Your task to perform on an android device: What's the weather today? Image 0: 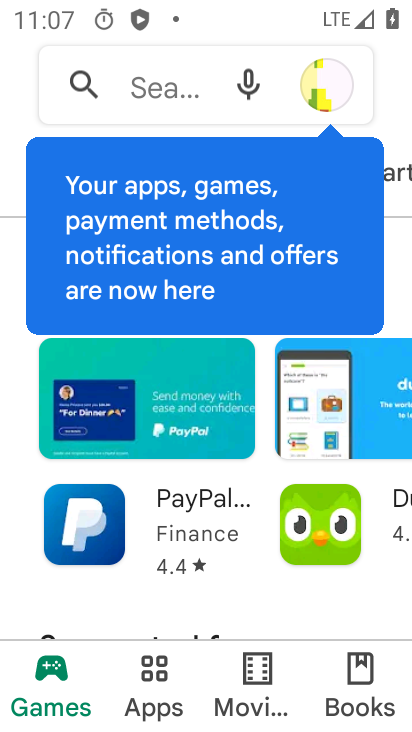
Step 0: press home button
Your task to perform on an android device: What's the weather today? Image 1: 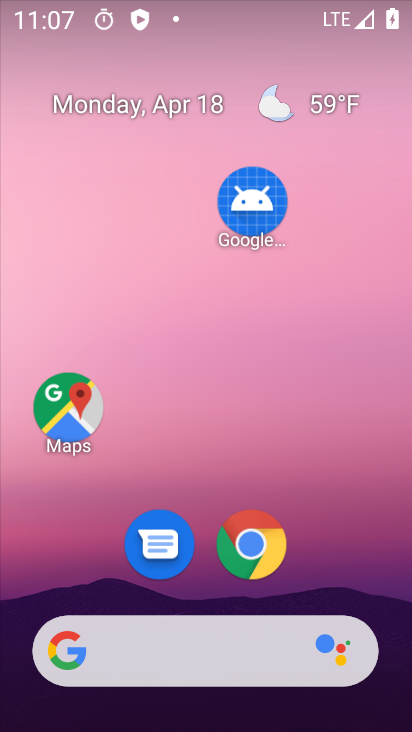
Step 1: click (351, 266)
Your task to perform on an android device: What's the weather today? Image 2: 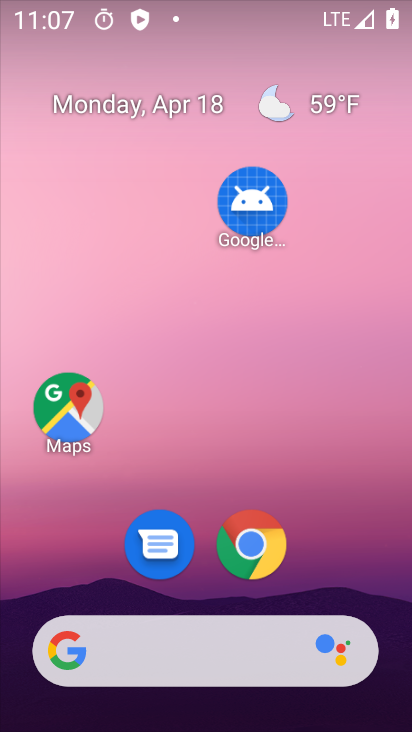
Step 2: drag from (251, 586) to (291, 188)
Your task to perform on an android device: What's the weather today? Image 3: 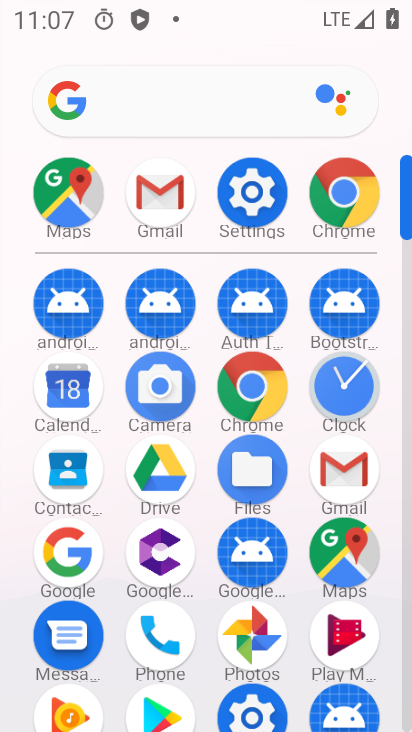
Step 3: drag from (213, 591) to (283, 175)
Your task to perform on an android device: What's the weather today? Image 4: 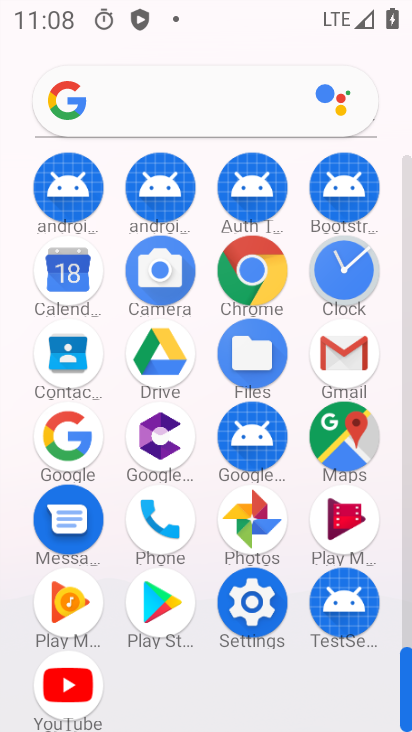
Step 4: drag from (186, 325) to (200, 699)
Your task to perform on an android device: What's the weather today? Image 5: 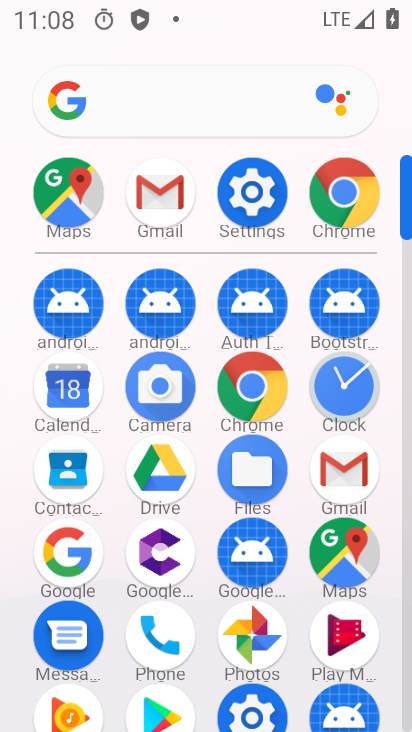
Step 5: click (66, 550)
Your task to perform on an android device: What's the weather today? Image 6: 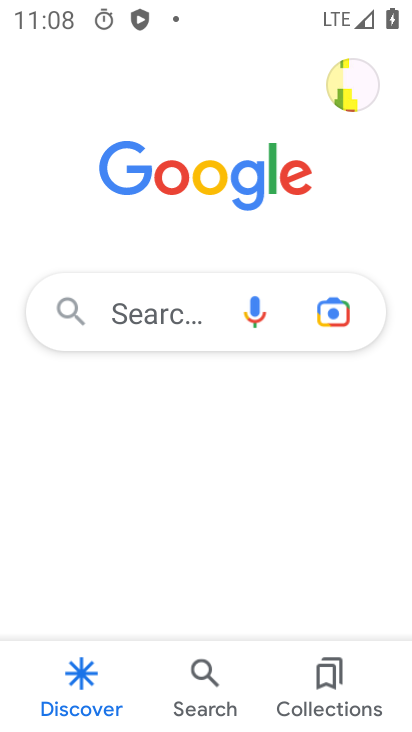
Step 6: click (162, 289)
Your task to perform on an android device: What's the weather today? Image 7: 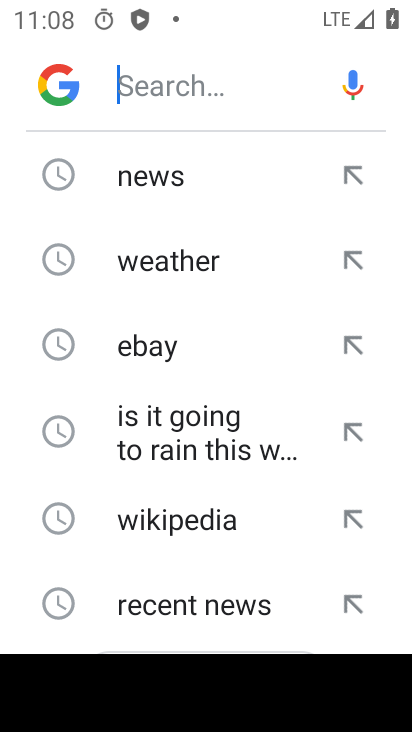
Step 7: type "What's the weather today?"
Your task to perform on an android device: What's the weather today? Image 8: 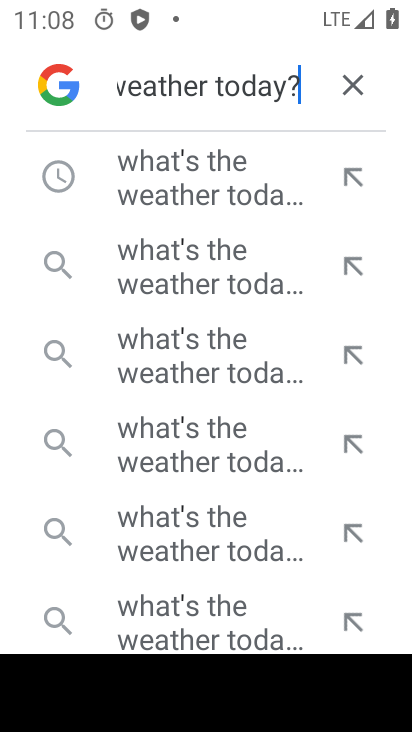
Step 8: click (234, 190)
Your task to perform on an android device: What's the weather today? Image 9: 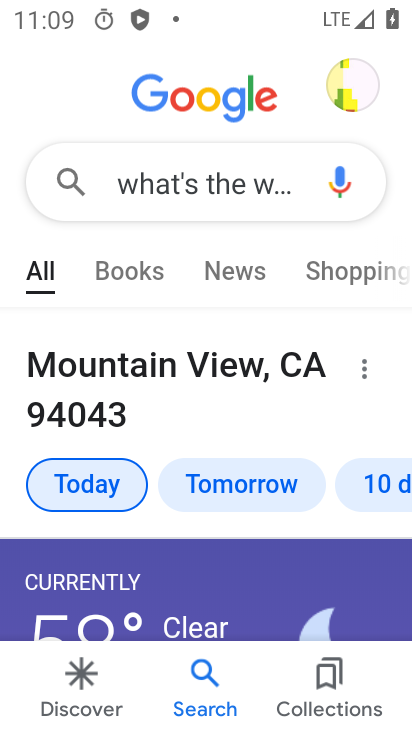
Step 9: task complete